Your task to perform on an android device: toggle translation in the chrome app Image 0: 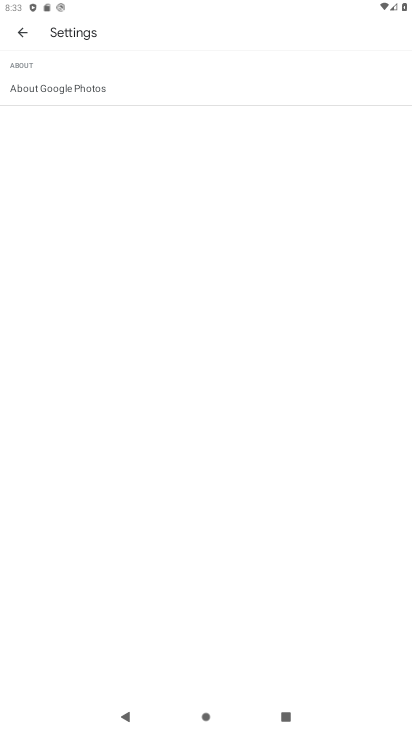
Step 0: press back button
Your task to perform on an android device: toggle translation in the chrome app Image 1: 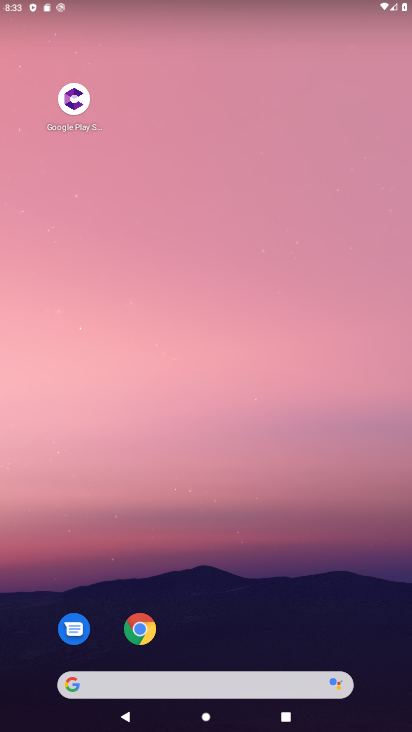
Step 1: drag from (217, 626) to (267, 12)
Your task to perform on an android device: toggle translation in the chrome app Image 2: 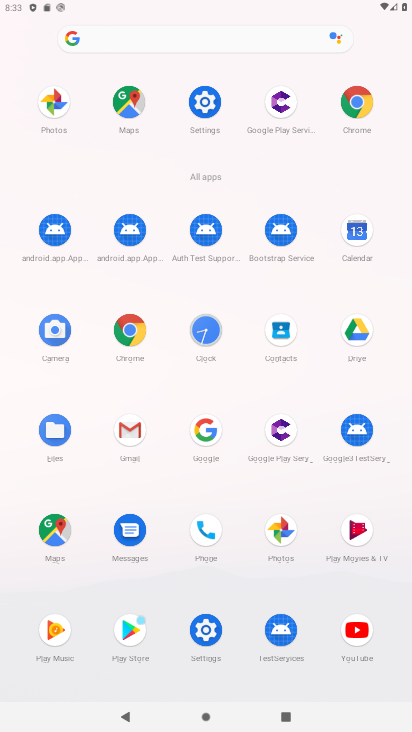
Step 2: click (215, 88)
Your task to perform on an android device: toggle translation in the chrome app Image 3: 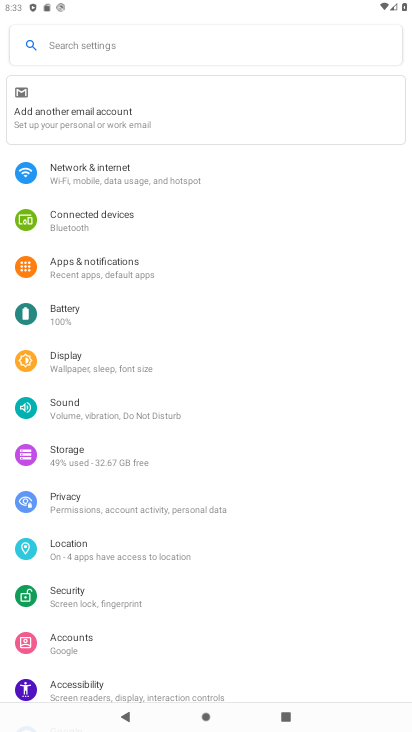
Step 3: click (70, 368)
Your task to perform on an android device: toggle translation in the chrome app Image 4: 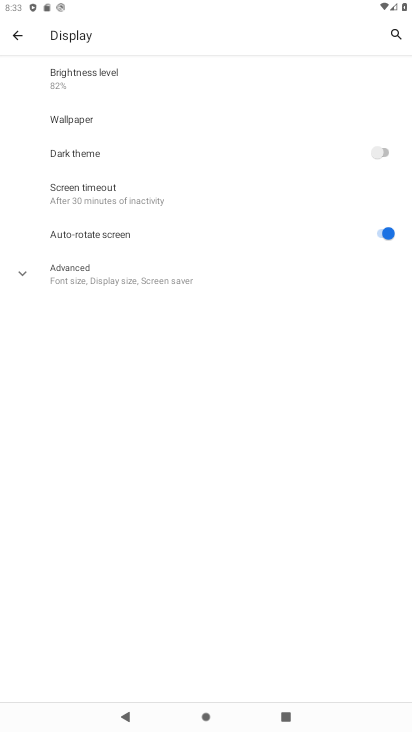
Step 4: click (101, 284)
Your task to perform on an android device: toggle translation in the chrome app Image 5: 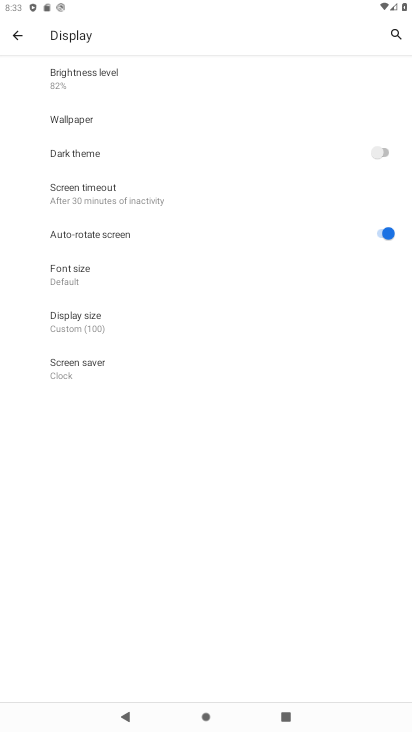
Step 5: click (79, 331)
Your task to perform on an android device: toggle translation in the chrome app Image 6: 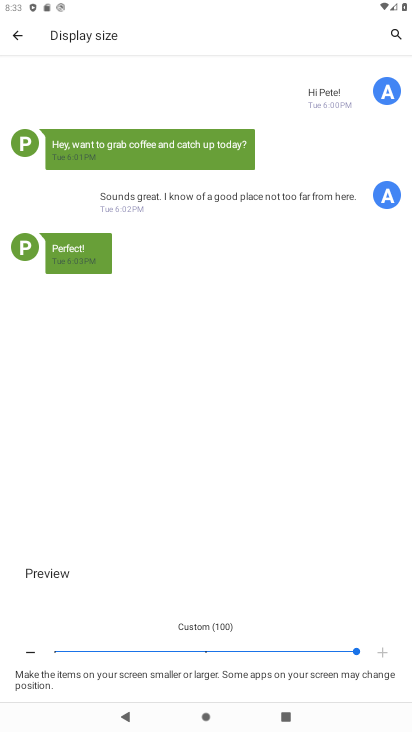
Step 6: click (212, 645)
Your task to perform on an android device: toggle translation in the chrome app Image 7: 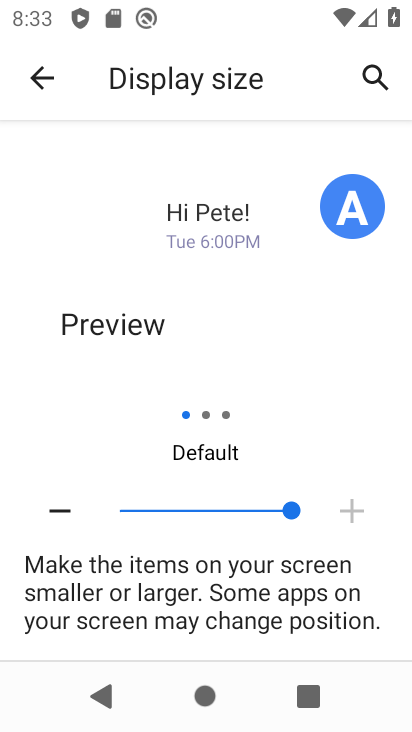
Step 7: click (35, 79)
Your task to perform on an android device: toggle translation in the chrome app Image 8: 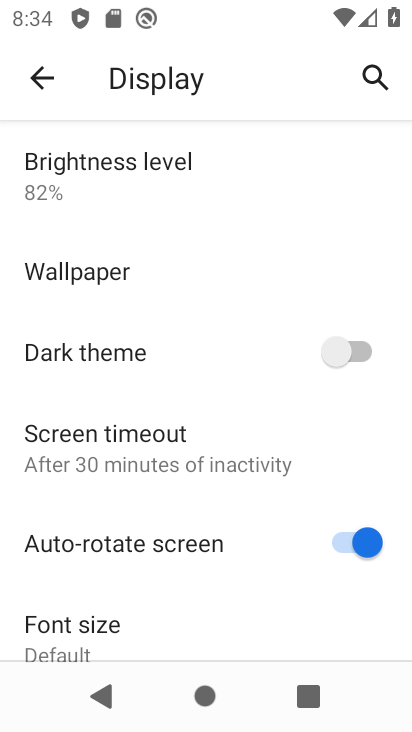
Step 8: press back button
Your task to perform on an android device: toggle translation in the chrome app Image 9: 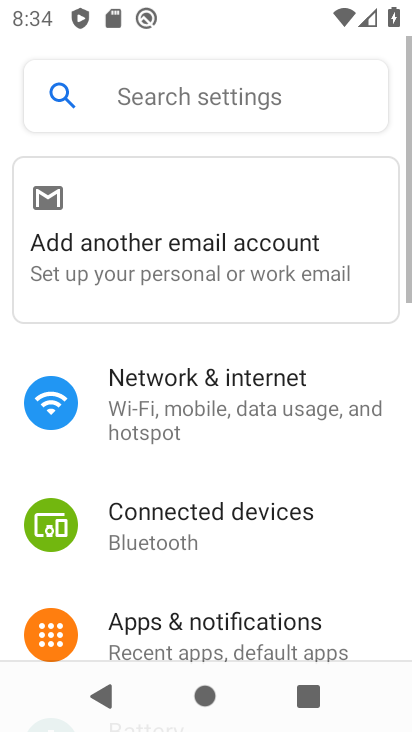
Step 9: press back button
Your task to perform on an android device: toggle translation in the chrome app Image 10: 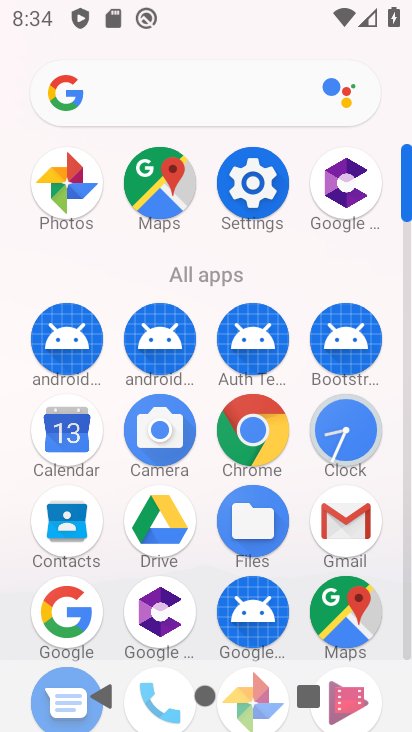
Step 10: click (261, 426)
Your task to perform on an android device: toggle translation in the chrome app Image 11: 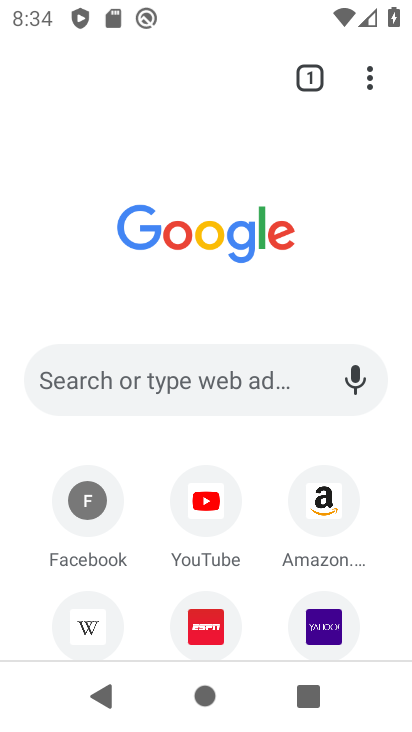
Step 11: drag from (370, 75) to (111, 547)
Your task to perform on an android device: toggle translation in the chrome app Image 12: 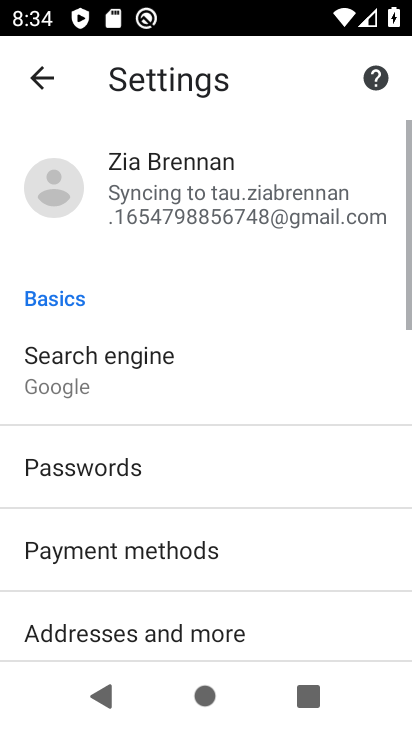
Step 12: drag from (118, 548) to (219, 40)
Your task to perform on an android device: toggle translation in the chrome app Image 13: 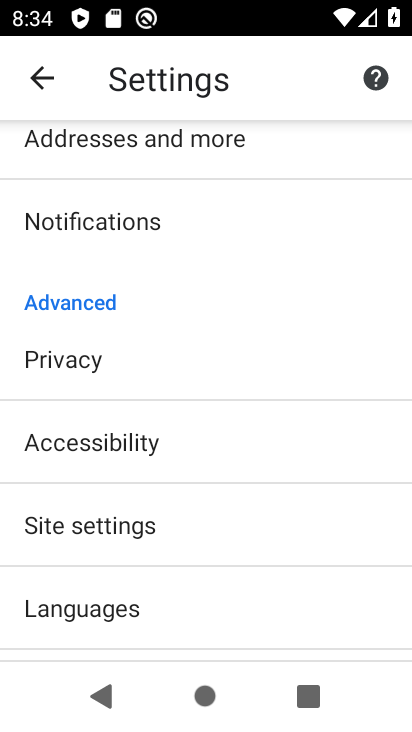
Step 13: click (78, 590)
Your task to perform on an android device: toggle translation in the chrome app Image 14: 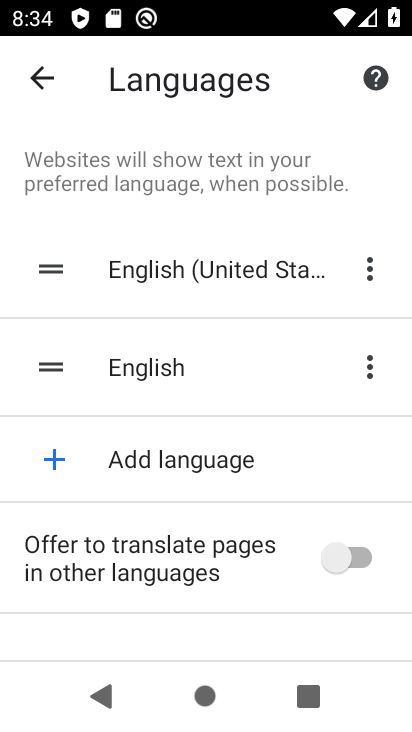
Step 14: click (352, 550)
Your task to perform on an android device: toggle translation in the chrome app Image 15: 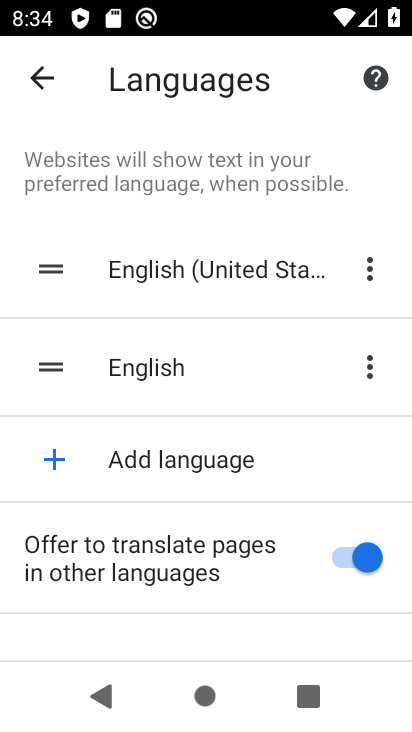
Step 15: task complete